Your task to perform on an android device: clear history in the chrome app Image 0: 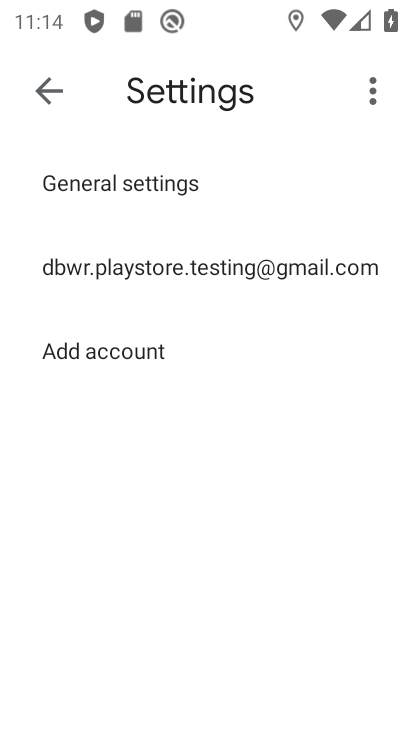
Step 0: press home button
Your task to perform on an android device: clear history in the chrome app Image 1: 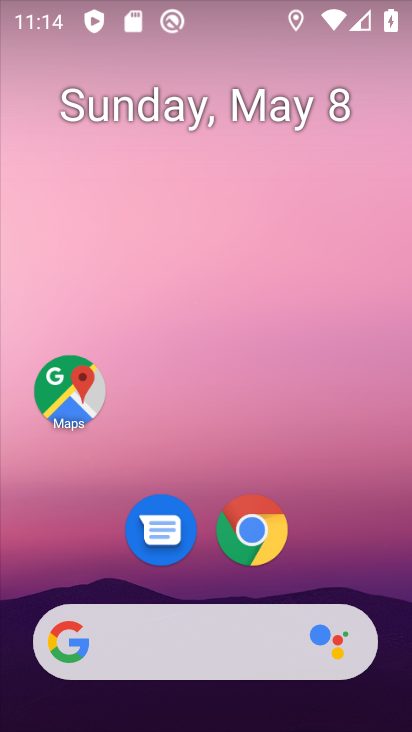
Step 1: drag from (315, 535) to (317, 26)
Your task to perform on an android device: clear history in the chrome app Image 2: 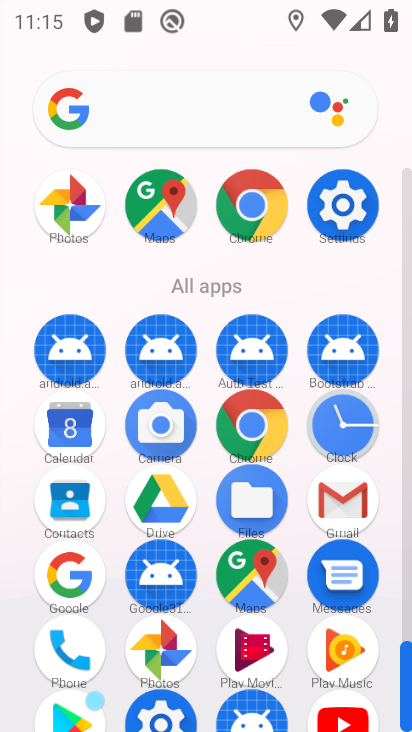
Step 2: click (238, 421)
Your task to perform on an android device: clear history in the chrome app Image 3: 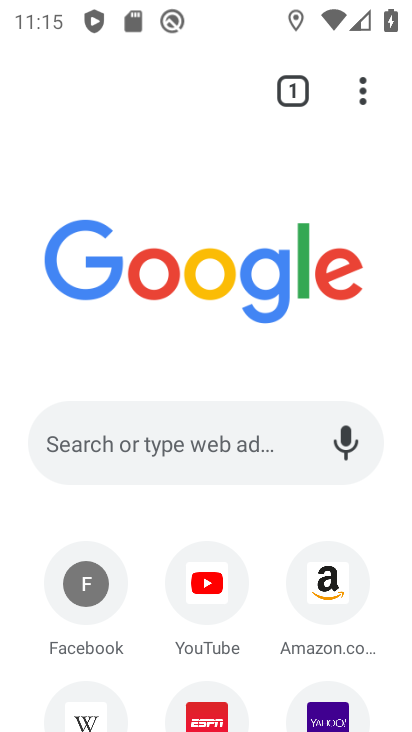
Step 3: task complete